Your task to perform on an android device: Open the Play Movies app and select the watchlist tab. Image 0: 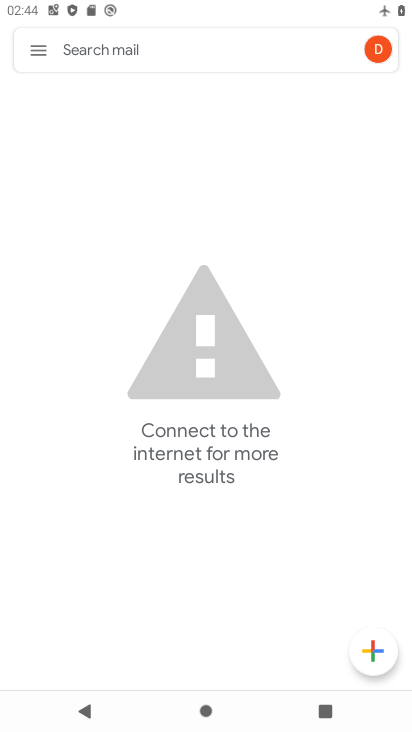
Step 0: press home button
Your task to perform on an android device: Open the Play Movies app and select the watchlist tab. Image 1: 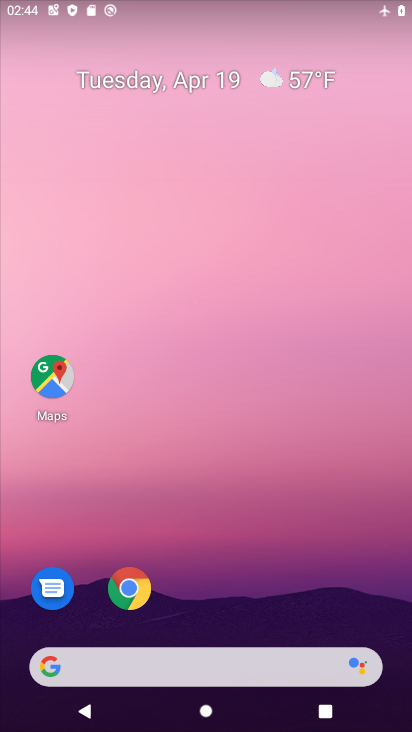
Step 1: drag from (266, 583) to (284, 160)
Your task to perform on an android device: Open the Play Movies app and select the watchlist tab. Image 2: 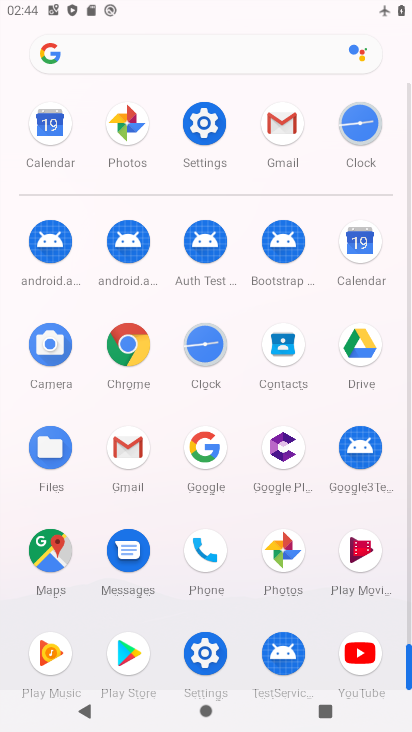
Step 2: click (355, 542)
Your task to perform on an android device: Open the Play Movies app and select the watchlist tab. Image 3: 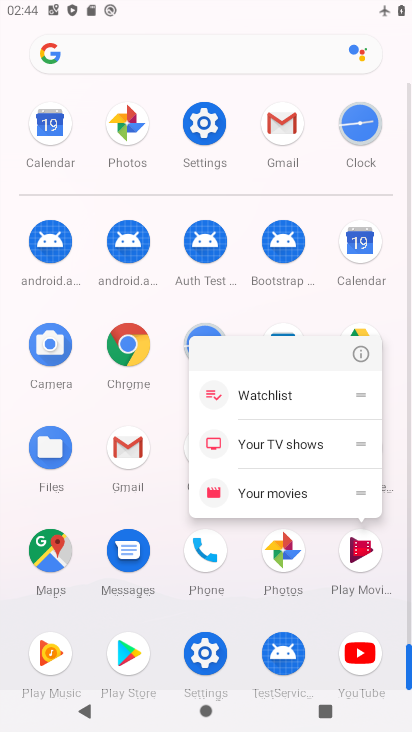
Step 3: click (358, 542)
Your task to perform on an android device: Open the Play Movies app and select the watchlist tab. Image 4: 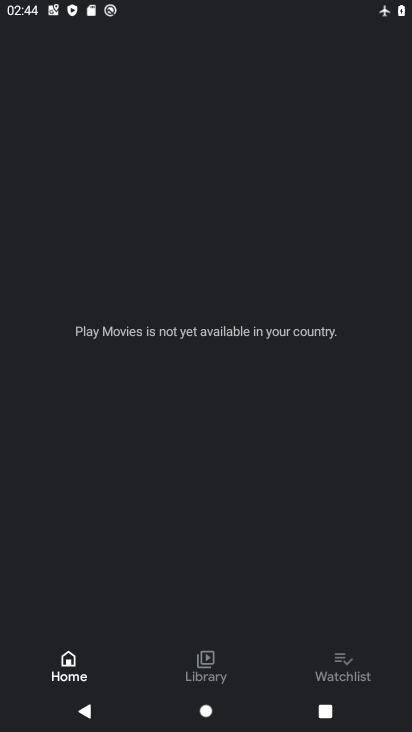
Step 4: click (334, 656)
Your task to perform on an android device: Open the Play Movies app and select the watchlist tab. Image 5: 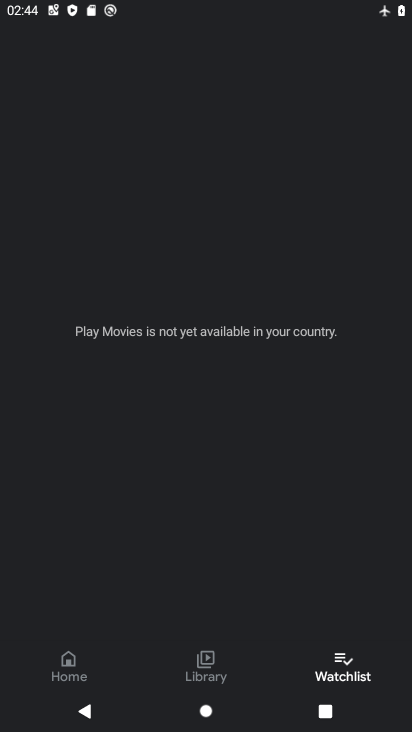
Step 5: task complete